Your task to perform on an android device: Go to Yahoo.com Image 0: 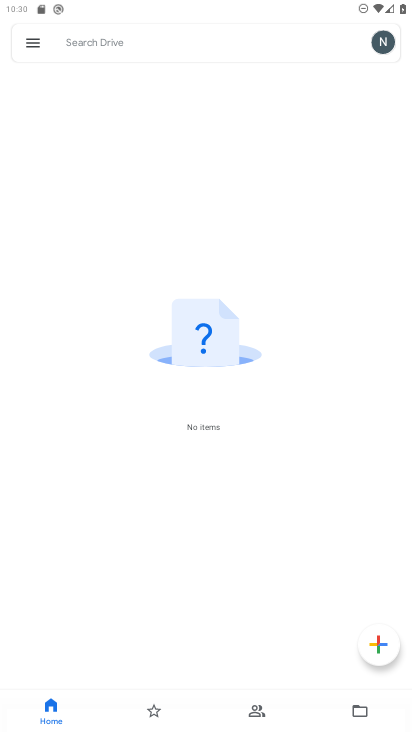
Step 0: press home button
Your task to perform on an android device: Go to Yahoo.com Image 1: 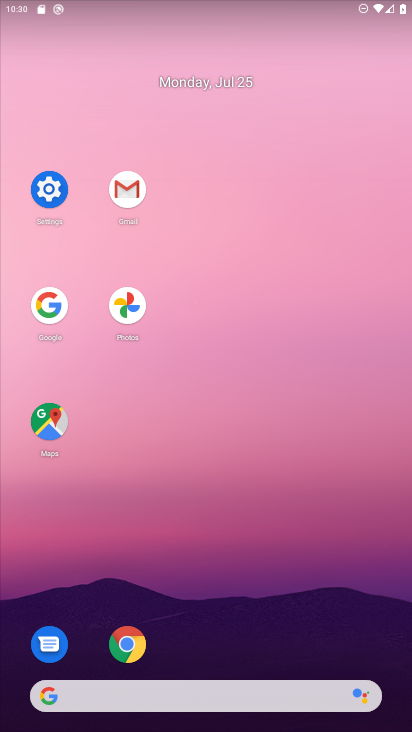
Step 1: click (123, 636)
Your task to perform on an android device: Go to Yahoo.com Image 2: 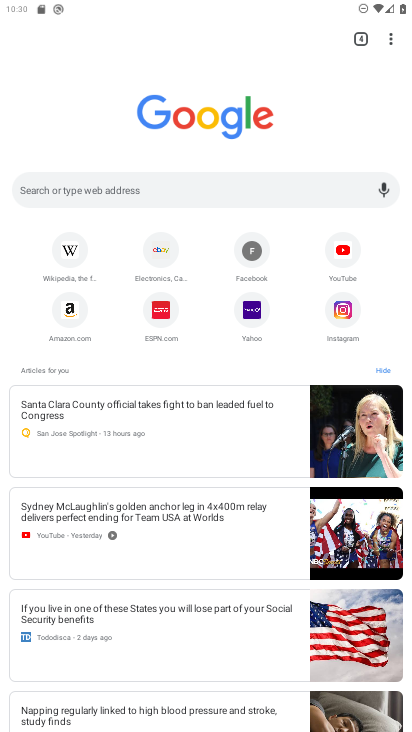
Step 2: click (252, 310)
Your task to perform on an android device: Go to Yahoo.com Image 3: 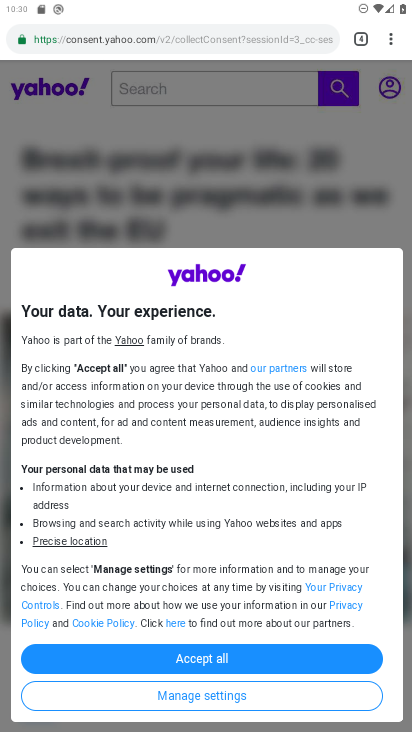
Step 3: task complete